Your task to perform on an android device: turn off improve location accuracy Image 0: 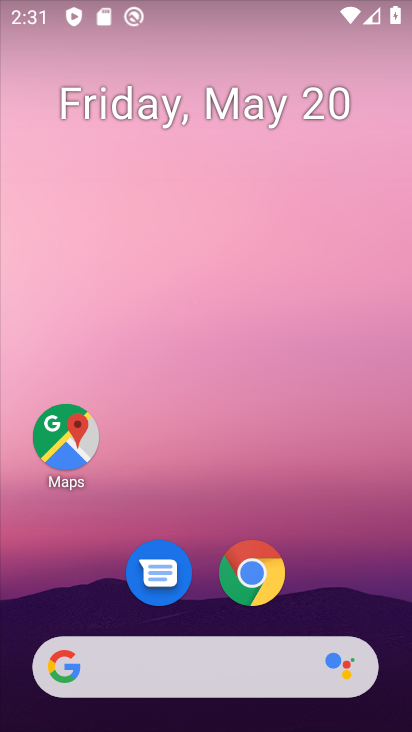
Step 0: drag from (365, 578) to (407, 68)
Your task to perform on an android device: turn off improve location accuracy Image 1: 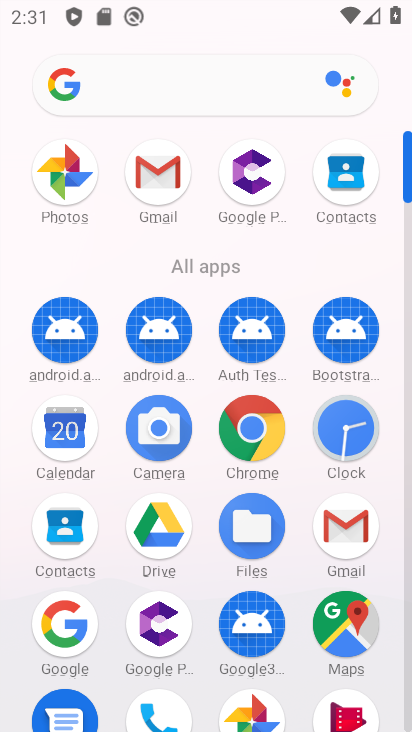
Step 1: click (411, 702)
Your task to perform on an android device: turn off improve location accuracy Image 2: 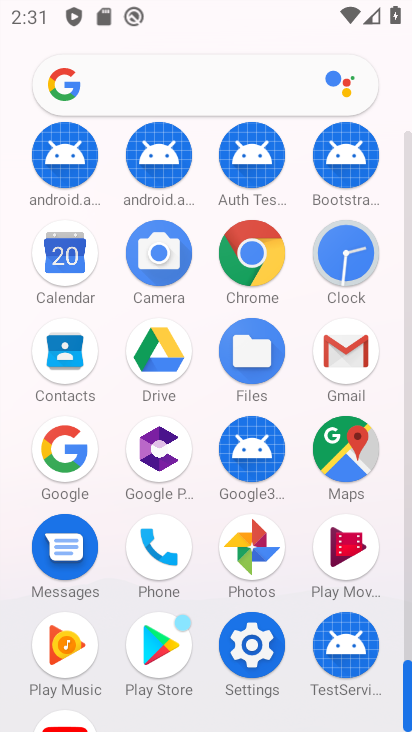
Step 2: click (271, 664)
Your task to perform on an android device: turn off improve location accuracy Image 3: 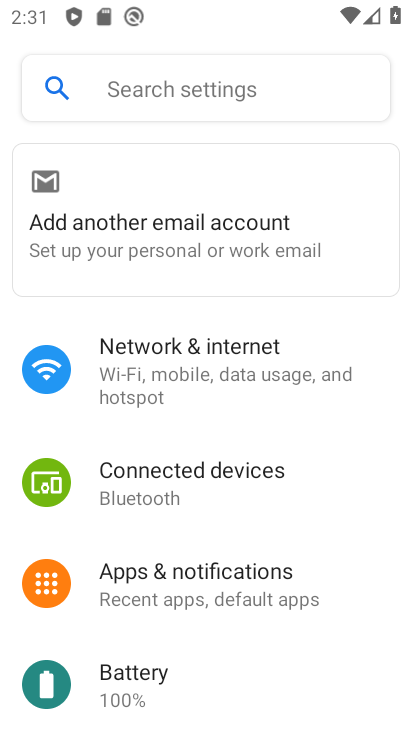
Step 3: drag from (298, 642) to (263, 243)
Your task to perform on an android device: turn off improve location accuracy Image 4: 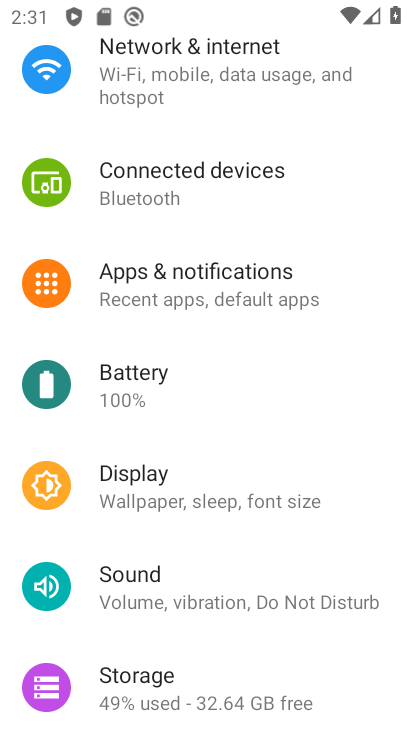
Step 4: drag from (283, 624) to (266, 267)
Your task to perform on an android device: turn off improve location accuracy Image 5: 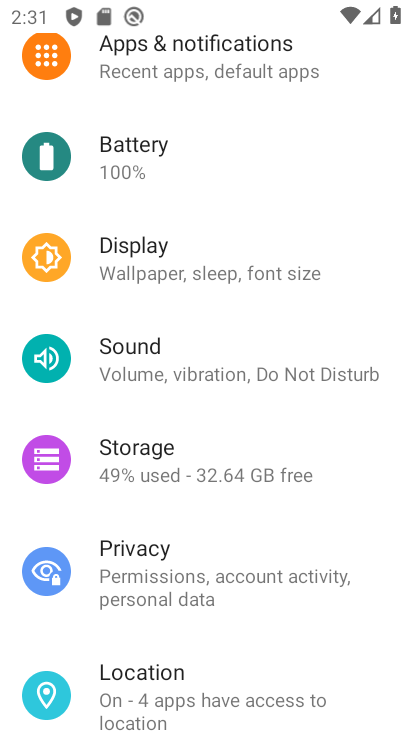
Step 5: click (254, 683)
Your task to perform on an android device: turn off improve location accuracy Image 6: 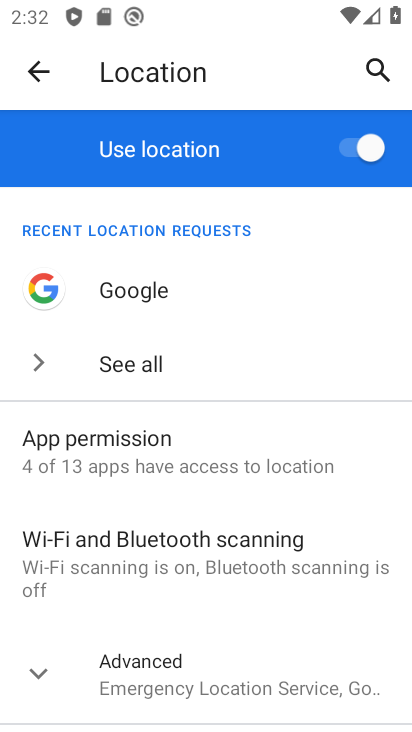
Step 6: click (229, 679)
Your task to perform on an android device: turn off improve location accuracy Image 7: 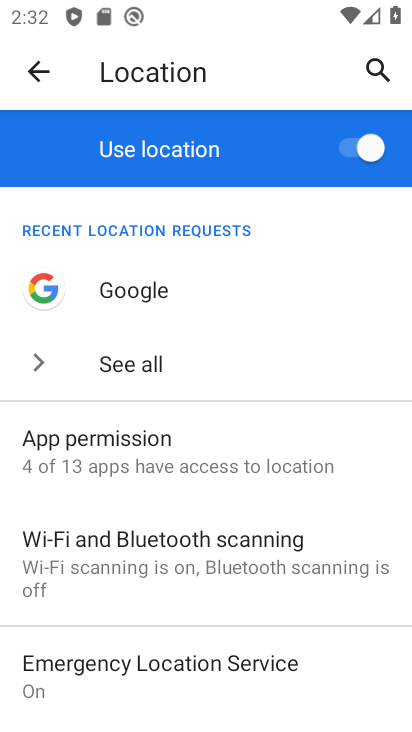
Step 7: drag from (229, 679) to (251, 227)
Your task to perform on an android device: turn off improve location accuracy Image 8: 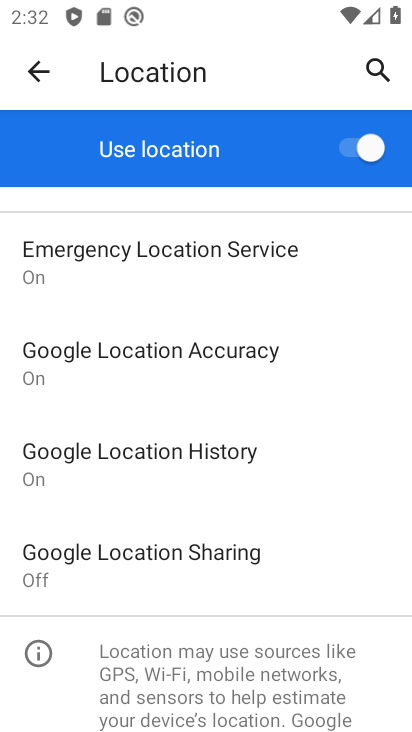
Step 8: click (232, 392)
Your task to perform on an android device: turn off improve location accuracy Image 9: 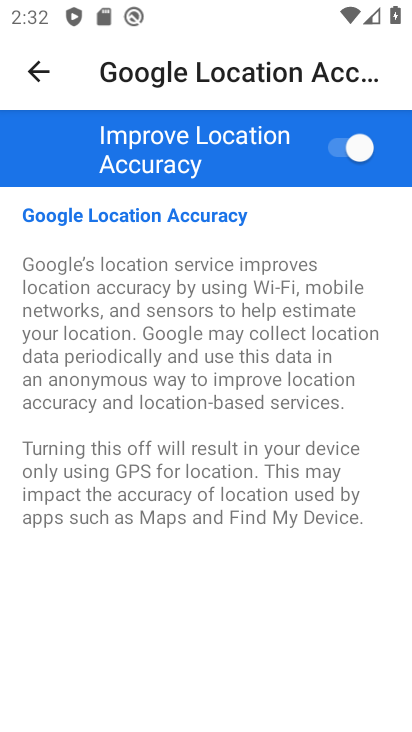
Step 9: click (350, 147)
Your task to perform on an android device: turn off improve location accuracy Image 10: 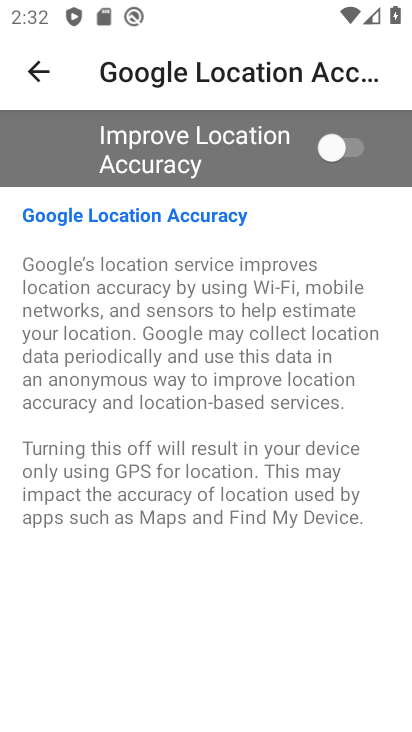
Step 10: task complete